Your task to perform on an android device: turn on bluetooth scan Image 0: 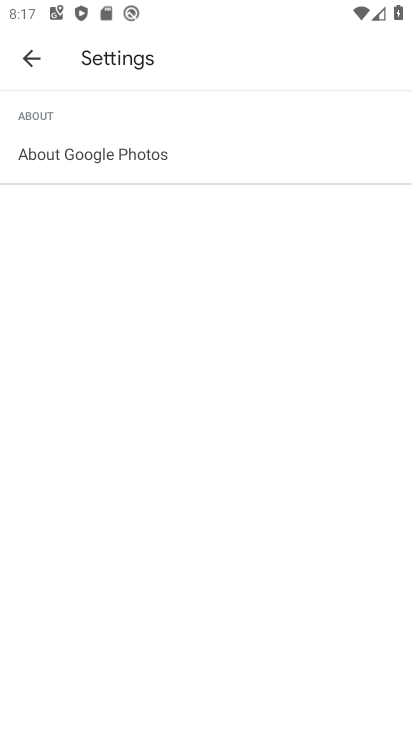
Step 0: press home button
Your task to perform on an android device: turn on bluetooth scan Image 1: 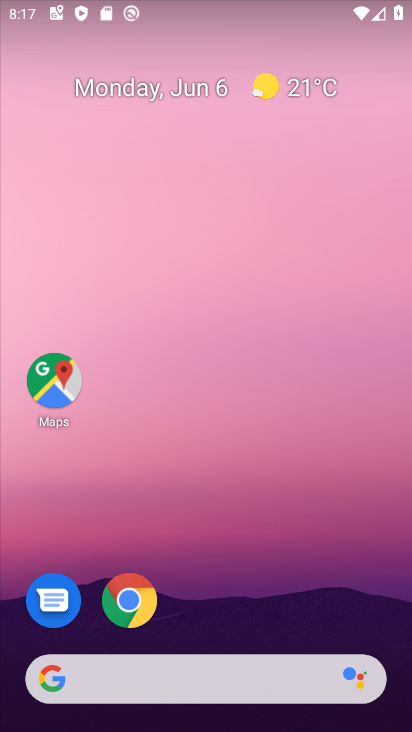
Step 1: drag from (390, 632) to (261, 52)
Your task to perform on an android device: turn on bluetooth scan Image 2: 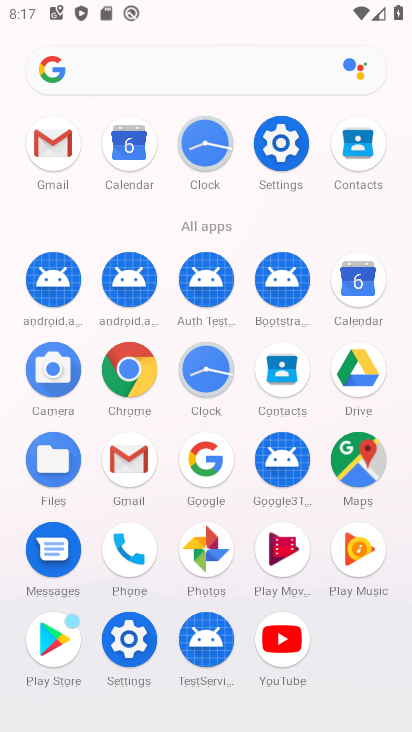
Step 2: click (131, 640)
Your task to perform on an android device: turn on bluetooth scan Image 3: 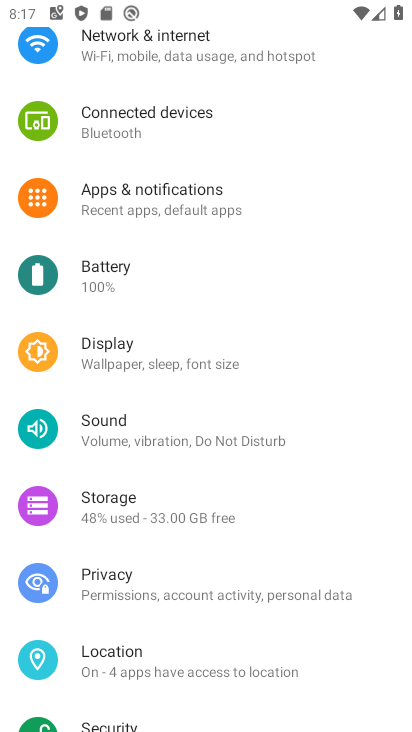
Step 3: click (111, 674)
Your task to perform on an android device: turn on bluetooth scan Image 4: 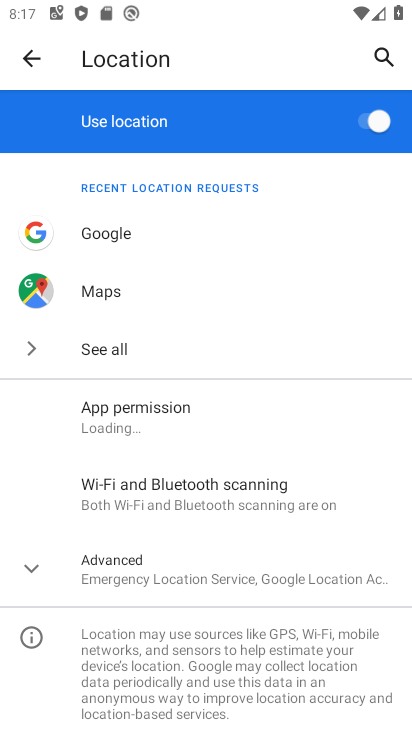
Step 4: click (148, 488)
Your task to perform on an android device: turn on bluetooth scan Image 5: 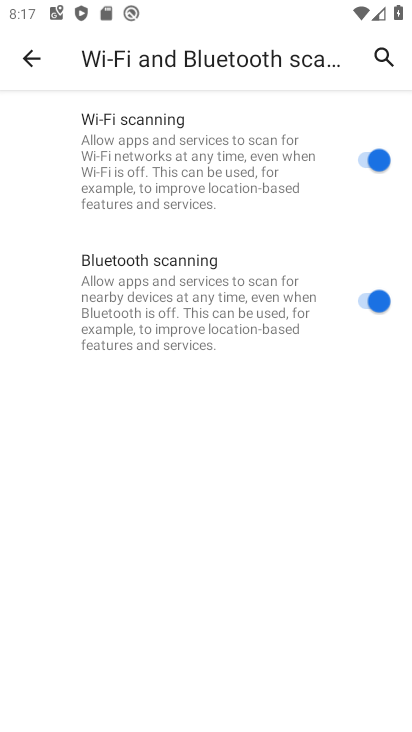
Step 5: task complete